Your task to perform on an android device: Go to privacy settings Image 0: 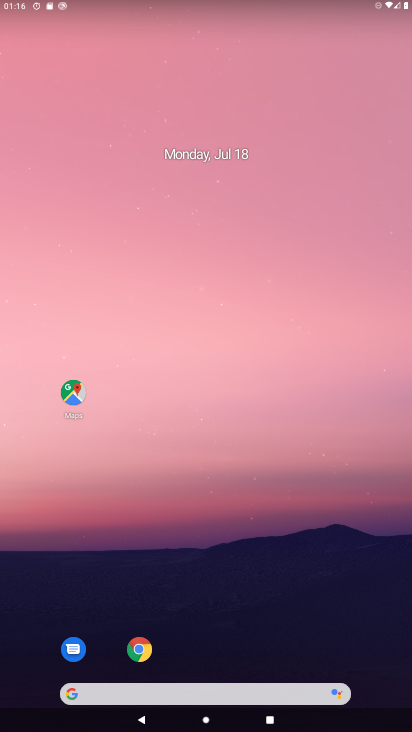
Step 0: click (134, 645)
Your task to perform on an android device: Go to privacy settings Image 1: 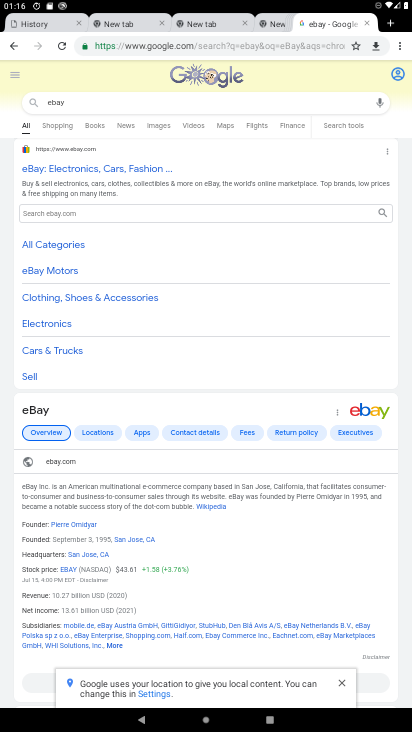
Step 1: click (400, 42)
Your task to perform on an android device: Go to privacy settings Image 2: 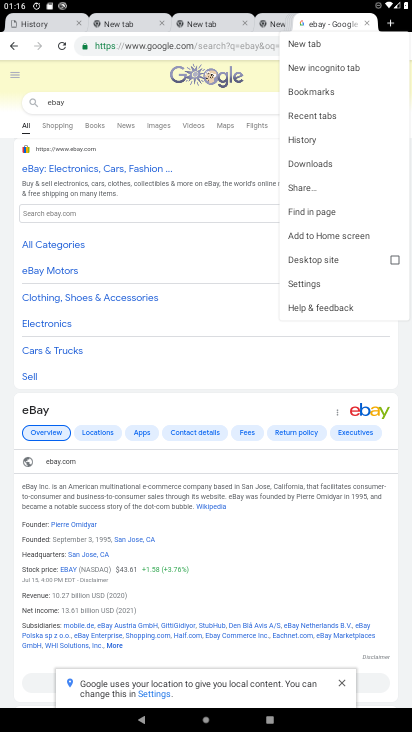
Step 2: click (306, 279)
Your task to perform on an android device: Go to privacy settings Image 3: 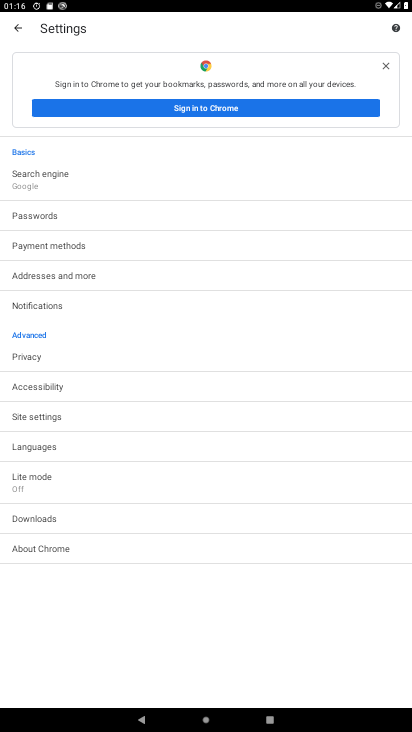
Step 3: click (39, 358)
Your task to perform on an android device: Go to privacy settings Image 4: 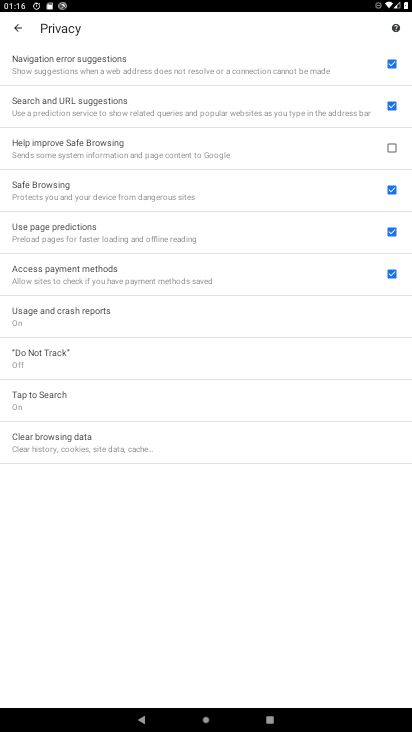
Step 4: task complete